Your task to perform on an android device: Open the Play Movies app and select the watchlist tab. Image 0: 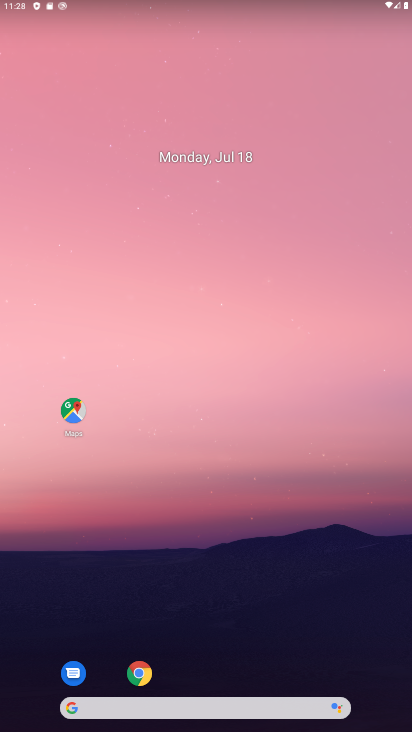
Step 0: drag from (237, 664) to (202, 20)
Your task to perform on an android device: Open the Play Movies app and select the watchlist tab. Image 1: 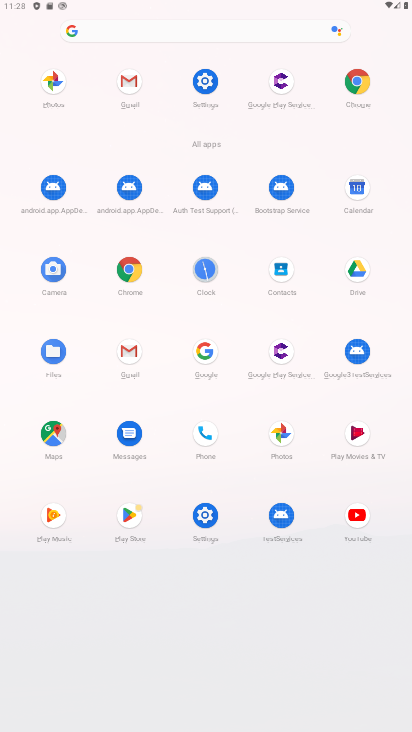
Step 1: click (360, 429)
Your task to perform on an android device: Open the Play Movies app and select the watchlist tab. Image 2: 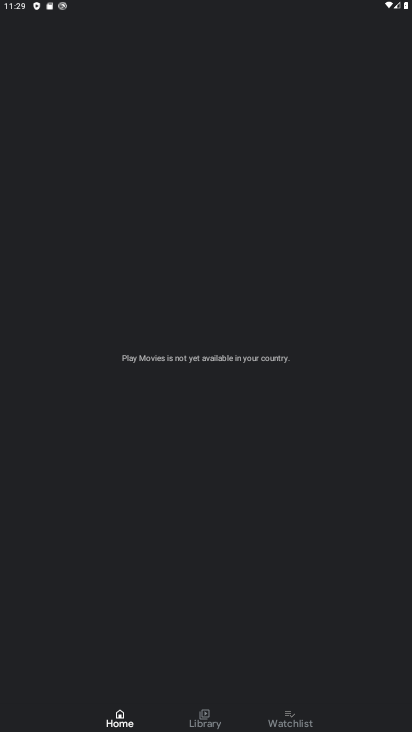
Step 2: click (294, 724)
Your task to perform on an android device: Open the Play Movies app and select the watchlist tab. Image 3: 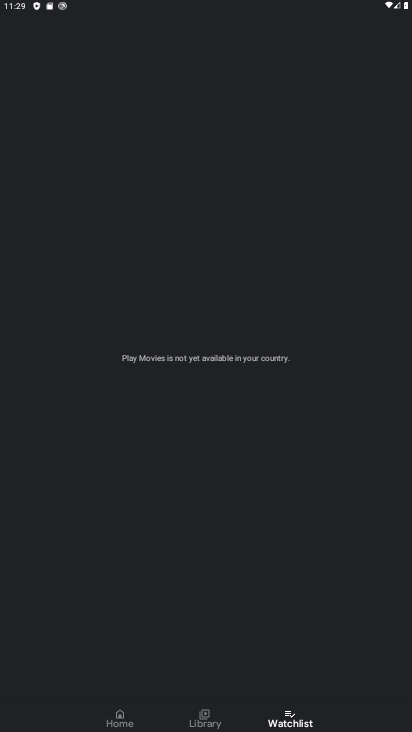
Step 3: task complete